Your task to perform on an android device: open chrome privacy settings Image 0: 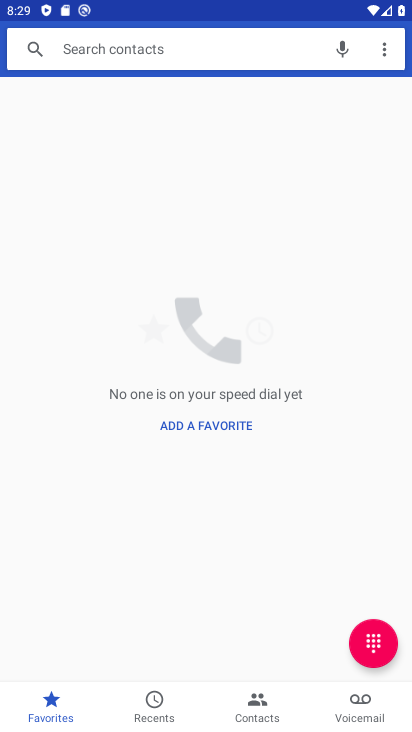
Step 0: press home button
Your task to perform on an android device: open chrome privacy settings Image 1: 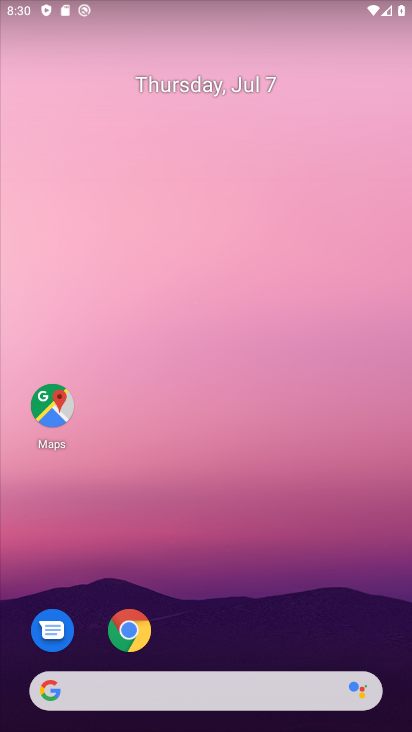
Step 1: click (152, 634)
Your task to perform on an android device: open chrome privacy settings Image 2: 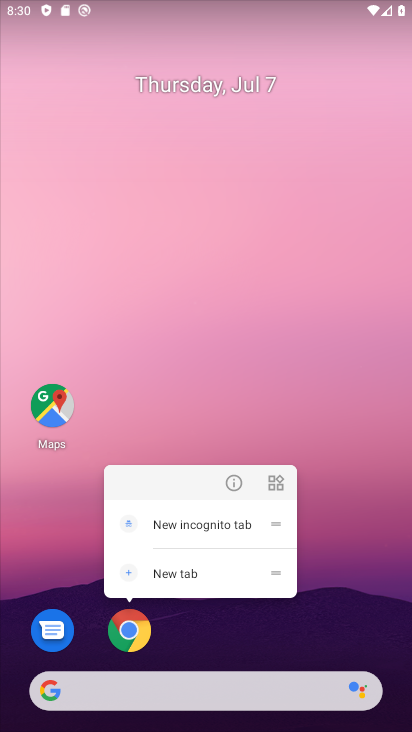
Step 2: click (135, 634)
Your task to perform on an android device: open chrome privacy settings Image 3: 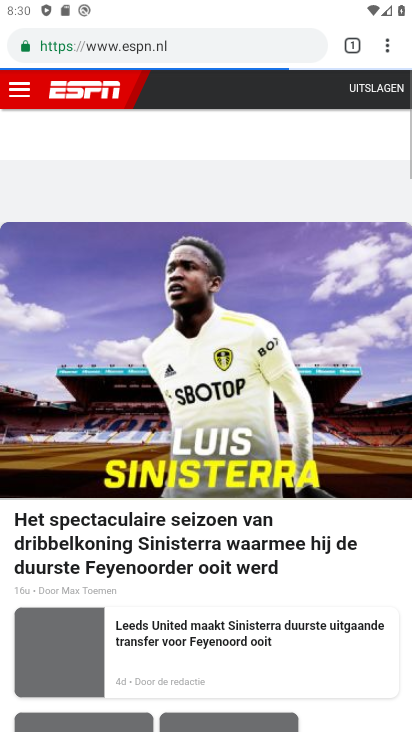
Step 3: click (381, 44)
Your task to perform on an android device: open chrome privacy settings Image 4: 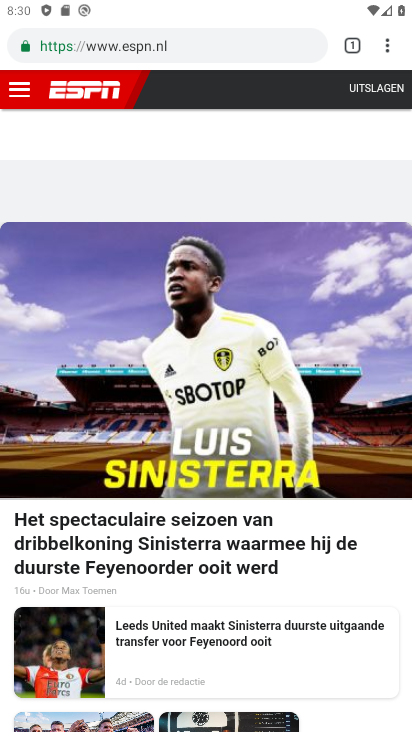
Step 4: drag from (381, 44) to (235, 603)
Your task to perform on an android device: open chrome privacy settings Image 5: 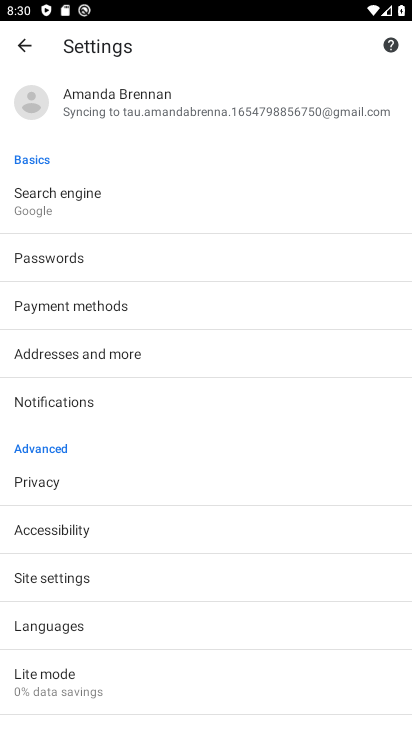
Step 5: click (79, 487)
Your task to perform on an android device: open chrome privacy settings Image 6: 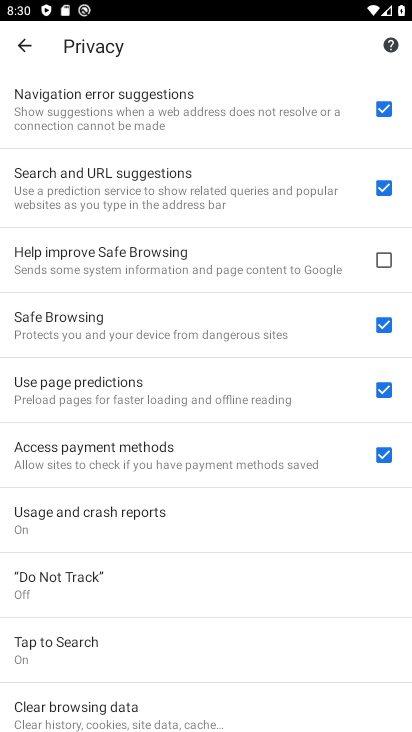
Step 6: task complete